Your task to perform on an android device: turn off javascript in the chrome app Image 0: 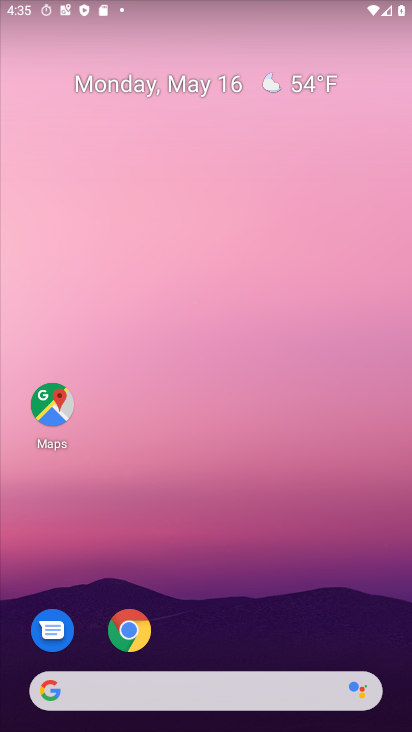
Step 0: drag from (235, 641) to (199, 141)
Your task to perform on an android device: turn off javascript in the chrome app Image 1: 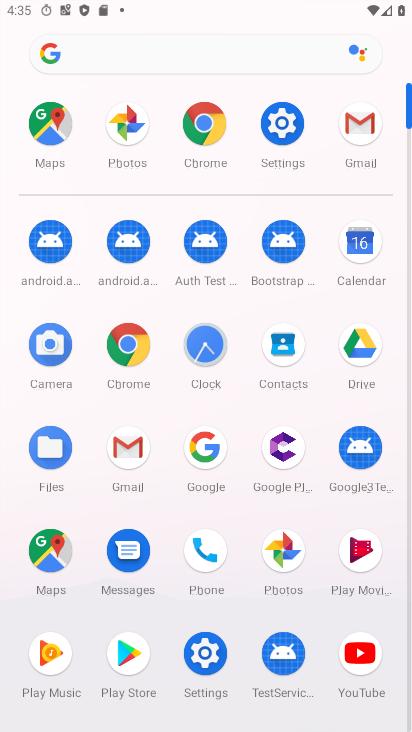
Step 1: click (201, 130)
Your task to perform on an android device: turn off javascript in the chrome app Image 2: 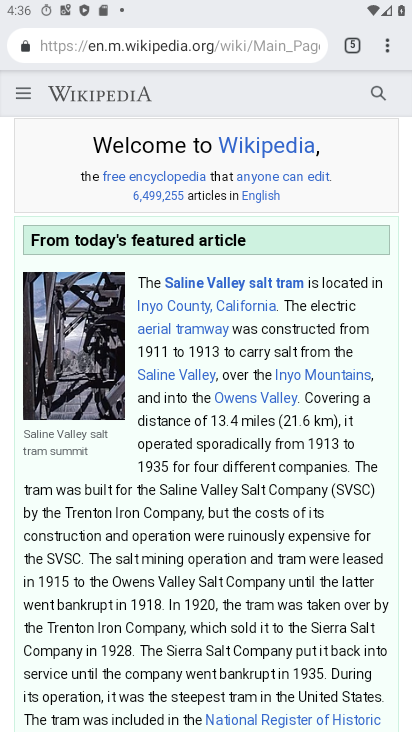
Step 2: click (384, 55)
Your task to perform on an android device: turn off javascript in the chrome app Image 3: 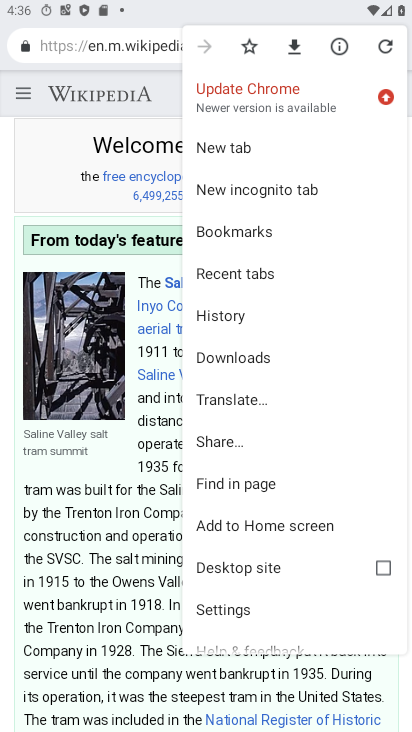
Step 3: click (293, 612)
Your task to perform on an android device: turn off javascript in the chrome app Image 4: 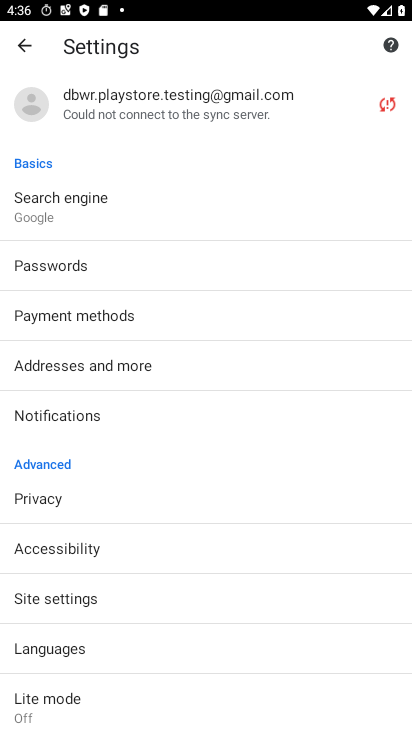
Step 4: click (202, 597)
Your task to perform on an android device: turn off javascript in the chrome app Image 5: 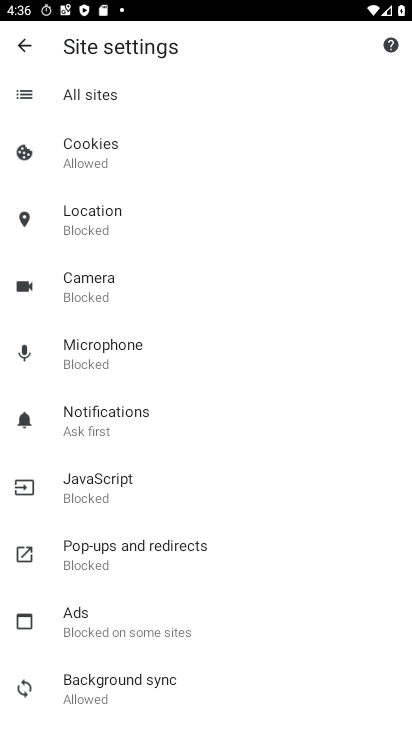
Step 5: click (174, 496)
Your task to perform on an android device: turn off javascript in the chrome app Image 6: 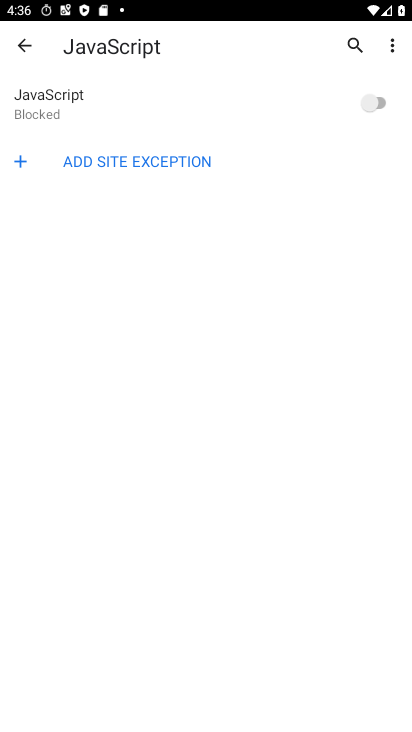
Step 6: task complete